Your task to perform on an android device: toggle notification dots Image 0: 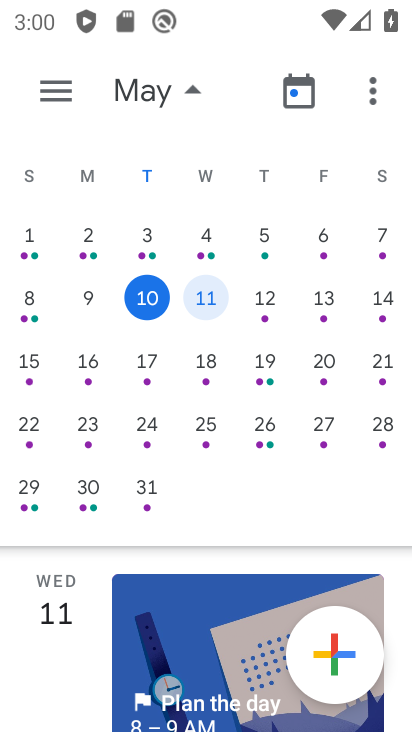
Step 0: press home button
Your task to perform on an android device: toggle notification dots Image 1: 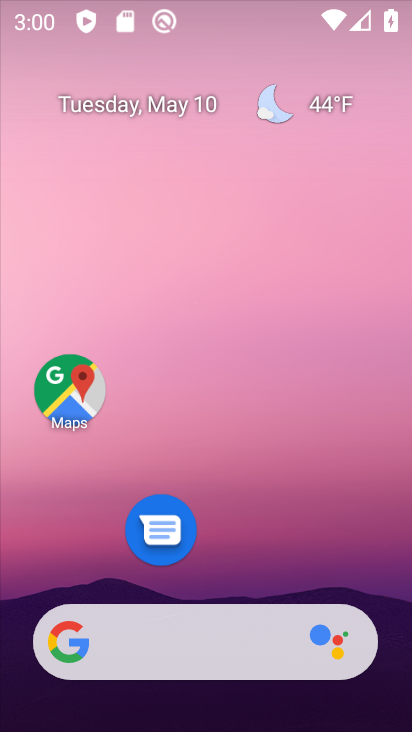
Step 1: drag from (283, 563) to (276, 109)
Your task to perform on an android device: toggle notification dots Image 2: 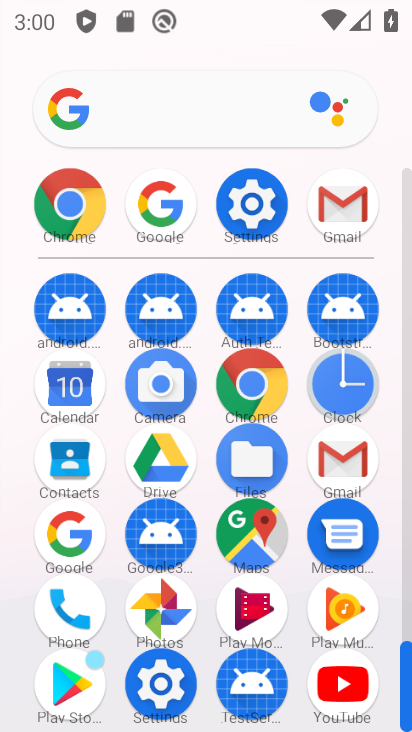
Step 2: click (243, 202)
Your task to perform on an android device: toggle notification dots Image 3: 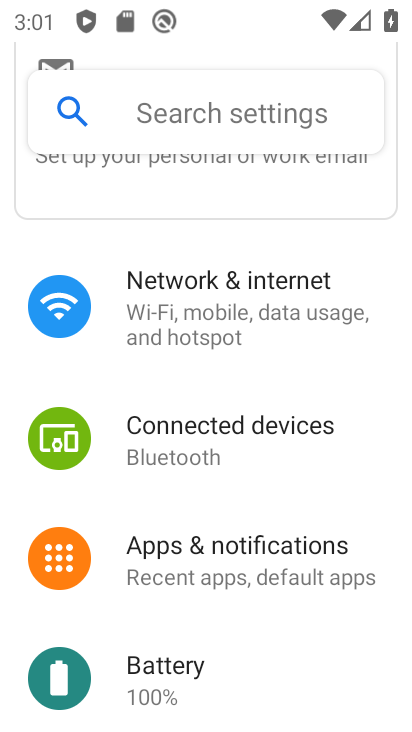
Step 3: click (241, 559)
Your task to perform on an android device: toggle notification dots Image 4: 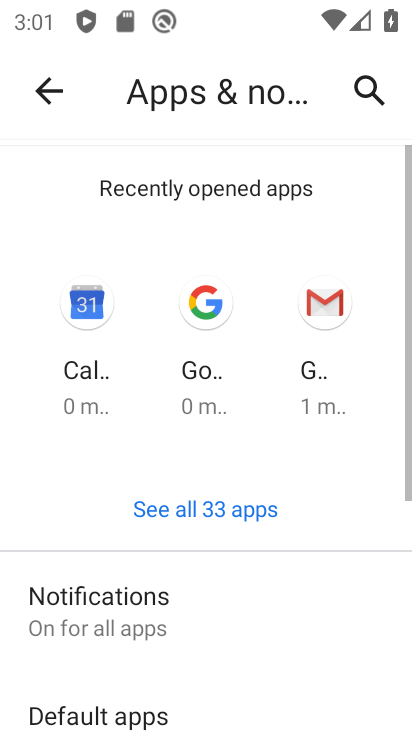
Step 4: click (113, 616)
Your task to perform on an android device: toggle notification dots Image 5: 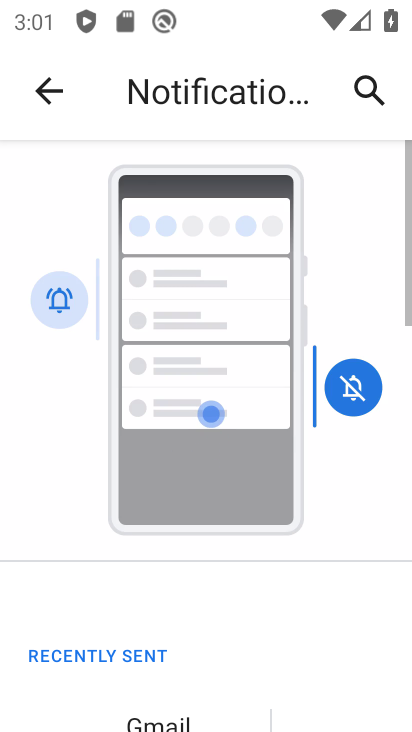
Step 5: drag from (233, 619) to (220, 73)
Your task to perform on an android device: toggle notification dots Image 6: 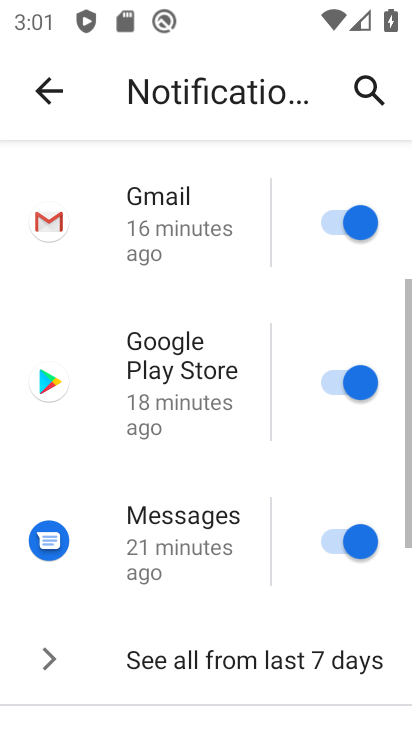
Step 6: drag from (163, 671) to (208, 216)
Your task to perform on an android device: toggle notification dots Image 7: 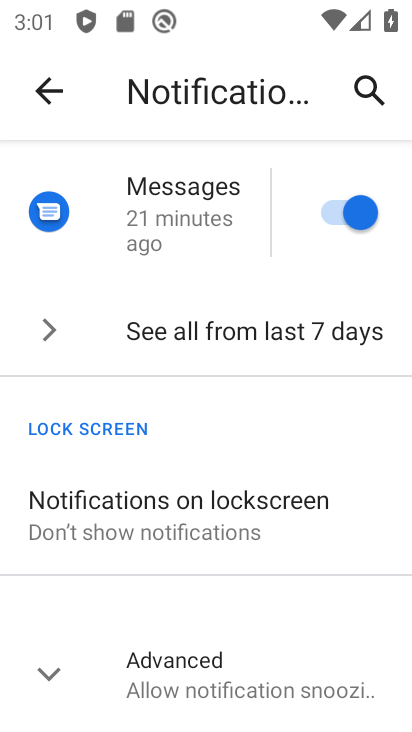
Step 7: click (133, 695)
Your task to perform on an android device: toggle notification dots Image 8: 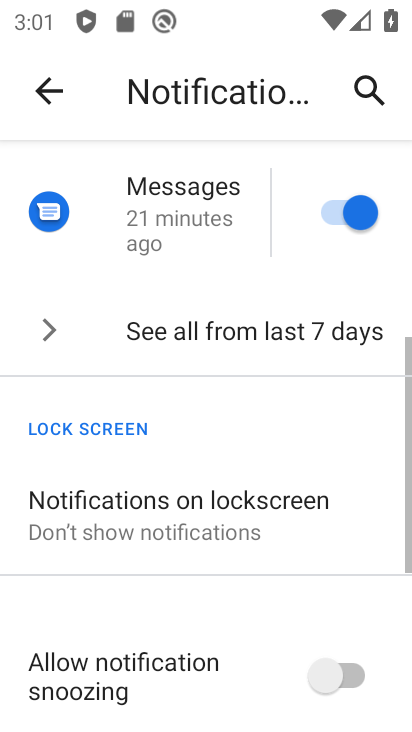
Step 8: drag from (271, 637) to (263, 75)
Your task to perform on an android device: toggle notification dots Image 9: 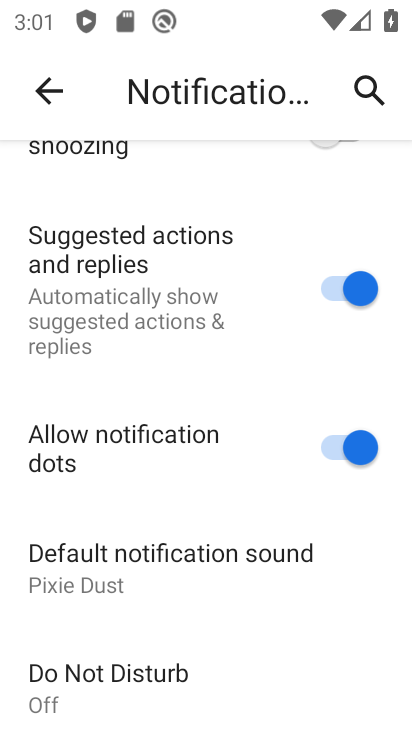
Step 9: click (351, 439)
Your task to perform on an android device: toggle notification dots Image 10: 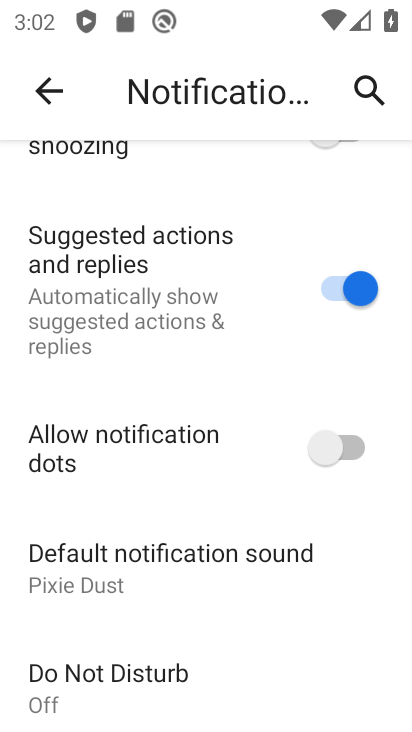
Step 10: task complete